Your task to perform on an android device: snooze an email in the gmail app Image 0: 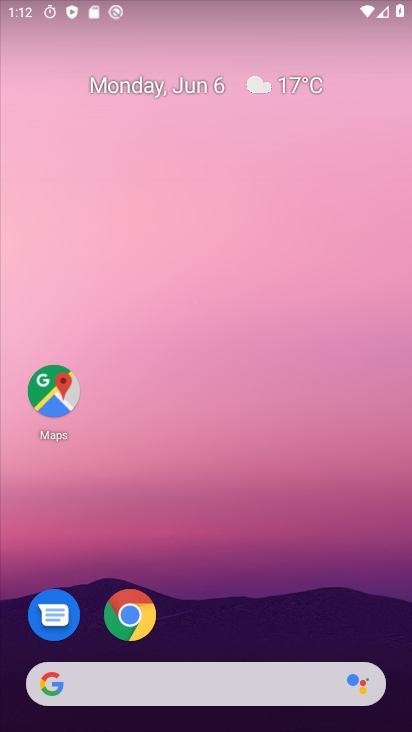
Step 0: drag from (227, 520) to (277, 264)
Your task to perform on an android device: snooze an email in the gmail app Image 1: 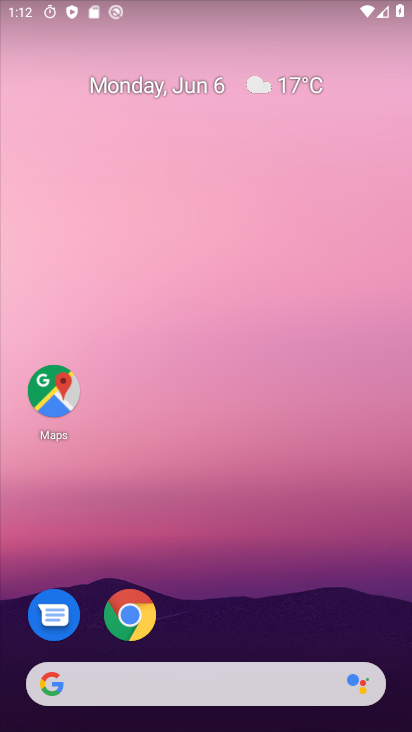
Step 1: drag from (217, 577) to (281, 207)
Your task to perform on an android device: snooze an email in the gmail app Image 2: 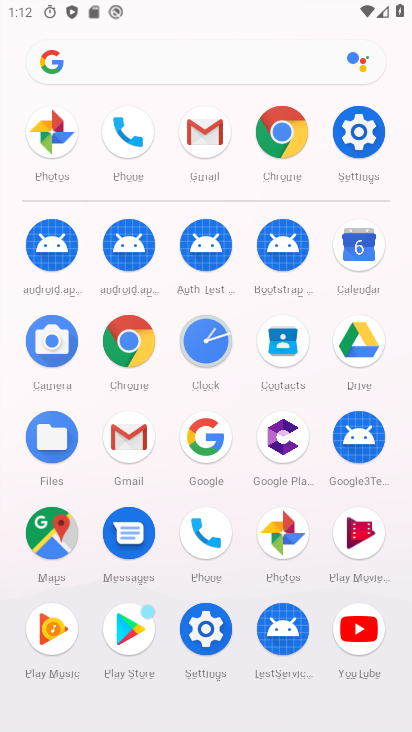
Step 2: click (130, 427)
Your task to perform on an android device: snooze an email in the gmail app Image 3: 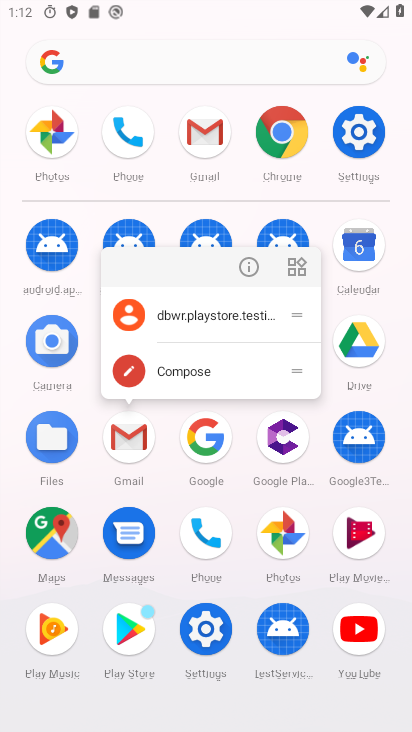
Step 3: click (228, 320)
Your task to perform on an android device: snooze an email in the gmail app Image 4: 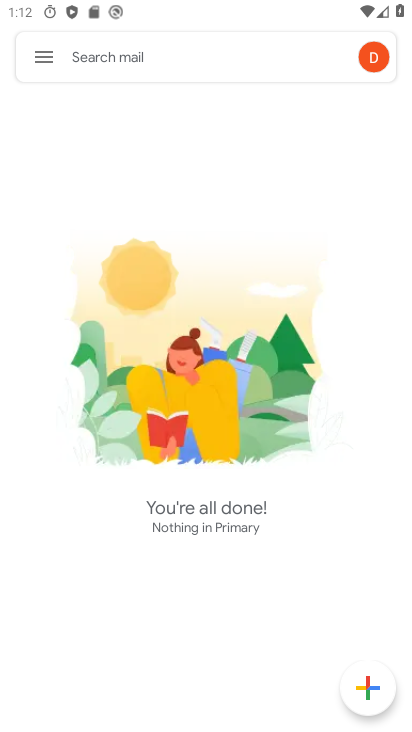
Step 4: click (40, 37)
Your task to perform on an android device: snooze an email in the gmail app Image 5: 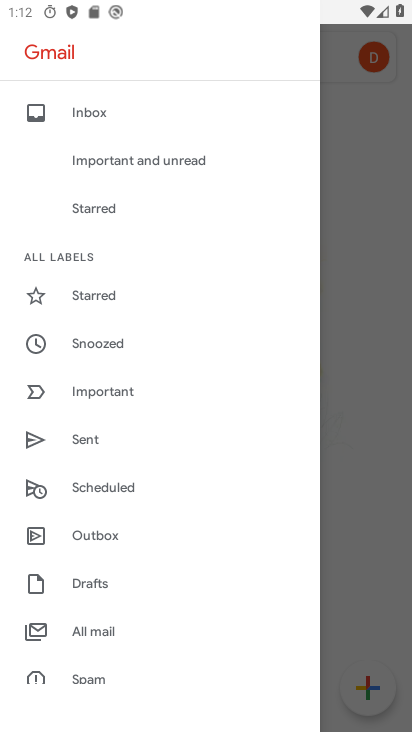
Step 5: click (145, 341)
Your task to perform on an android device: snooze an email in the gmail app Image 6: 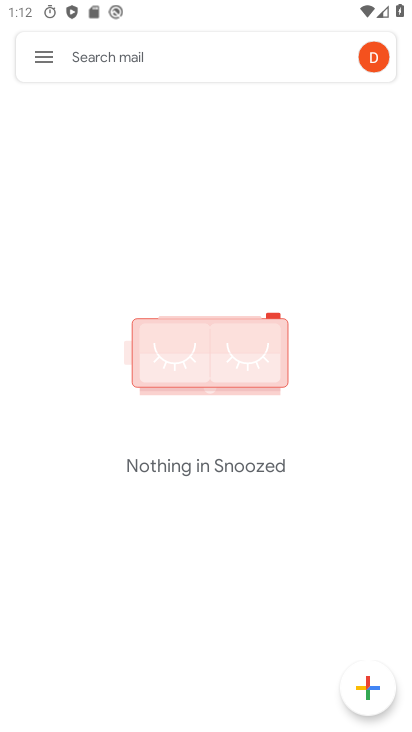
Step 6: task complete